Your task to perform on an android device: Open Google Maps and go to "Timeline" Image 0: 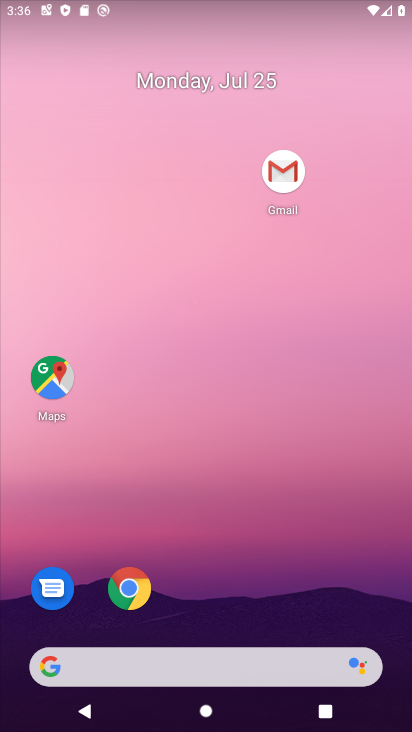
Step 0: drag from (260, 565) to (192, 56)
Your task to perform on an android device: Open Google Maps and go to "Timeline" Image 1: 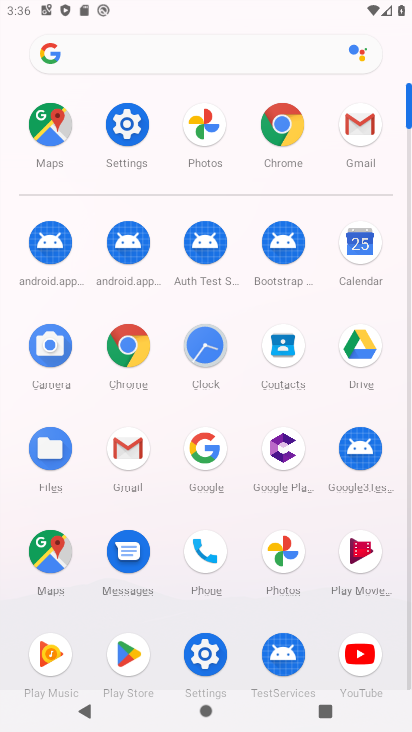
Step 1: click (57, 560)
Your task to perform on an android device: Open Google Maps and go to "Timeline" Image 2: 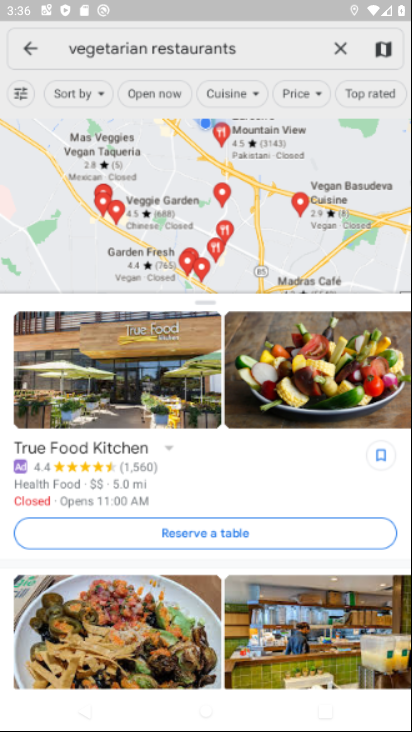
Step 2: click (31, 49)
Your task to perform on an android device: Open Google Maps and go to "Timeline" Image 3: 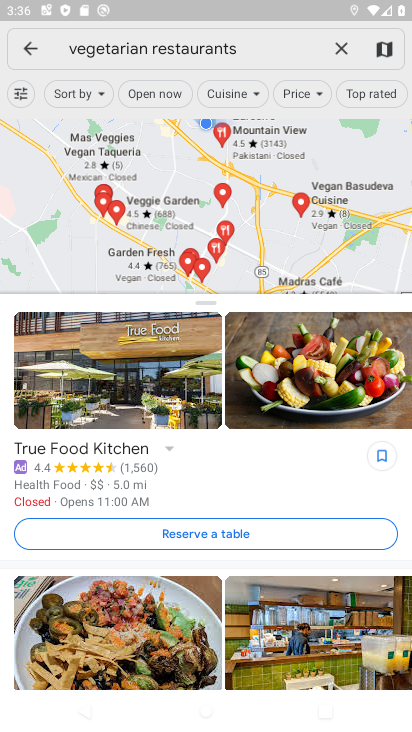
Step 3: click (31, 48)
Your task to perform on an android device: Open Google Maps and go to "Timeline" Image 4: 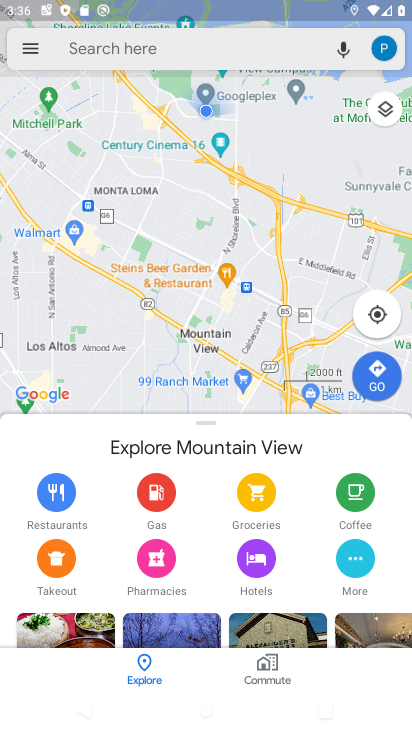
Step 4: click (17, 44)
Your task to perform on an android device: Open Google Maps and go to "Timeline" Image 5: 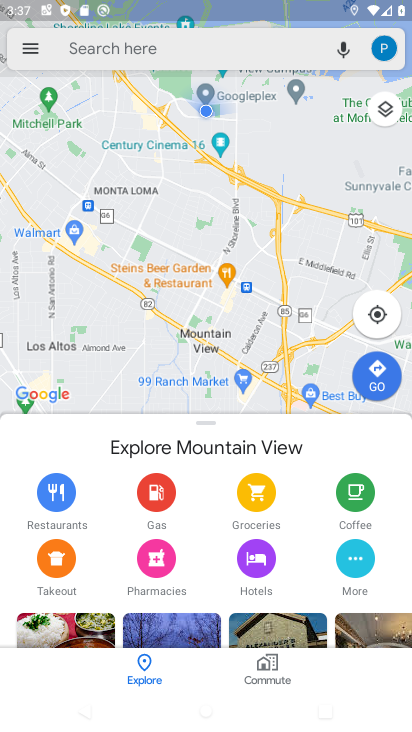
Step 5: click (23, 47)
Your task to perform on an android device: Open Google Maps and go to "Timeline" Image 6: 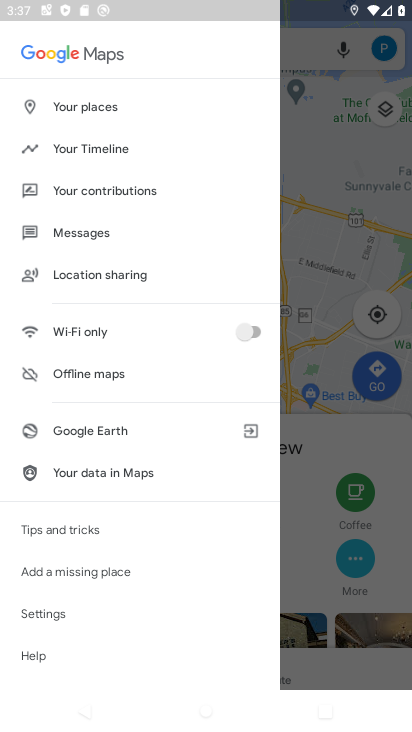
Step 6: click (99, 154)
Your task to perform on an android device: Open Google Maps and go to "Timeline" Image 7: 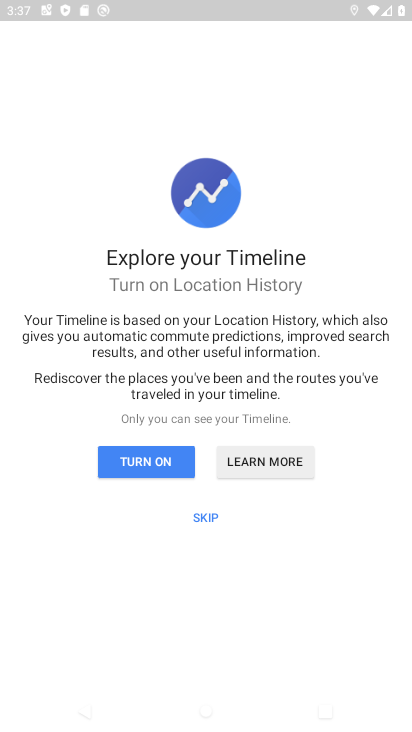
Step 7: click (158, 454)
Your task to perform on an android device: Open Google Maps and go to "Timeline" Image 8: 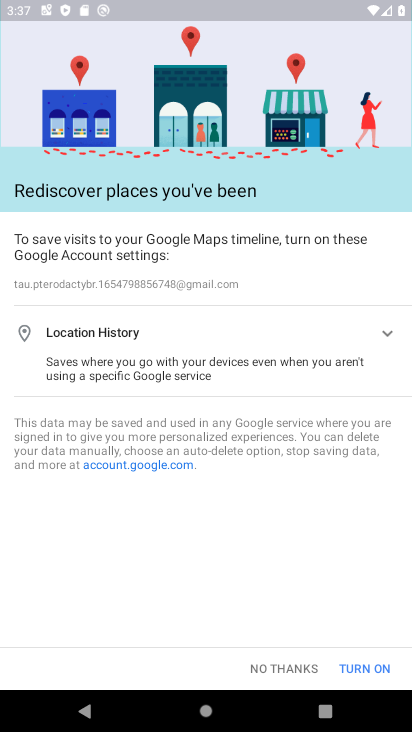
Step 8: click (352, 673)
Your task to perform on an android device: Open Google Maps and go to "Timeline" Image 9: 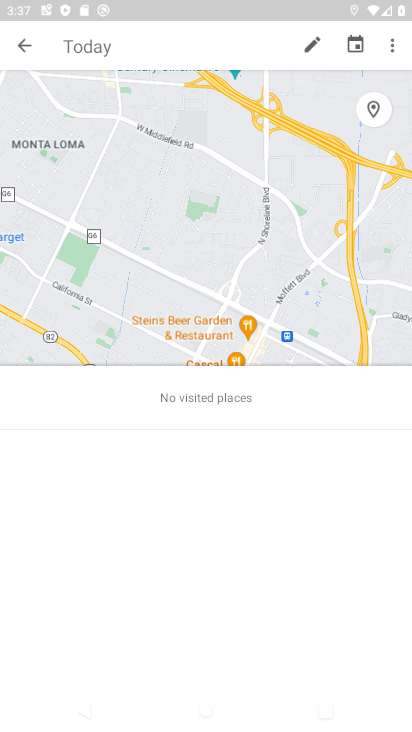
Step 9: task complete